Your task to perform on an android device: Go to CNN.com Image 0: 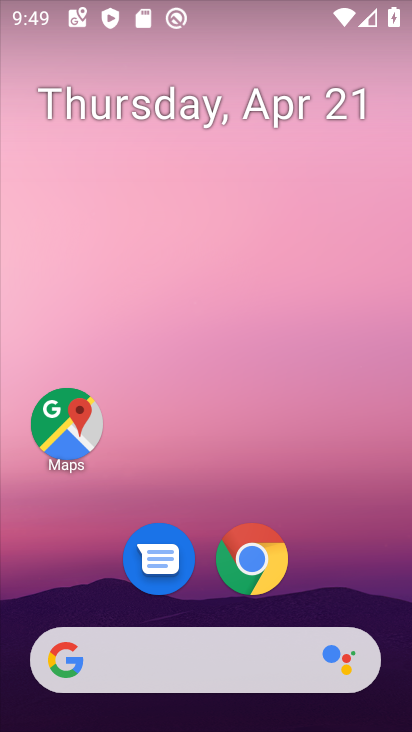
Step 0: drag from (282, 625) to (342, 181)
Your task to perform on an android device: Go to CNN.com Image 1: 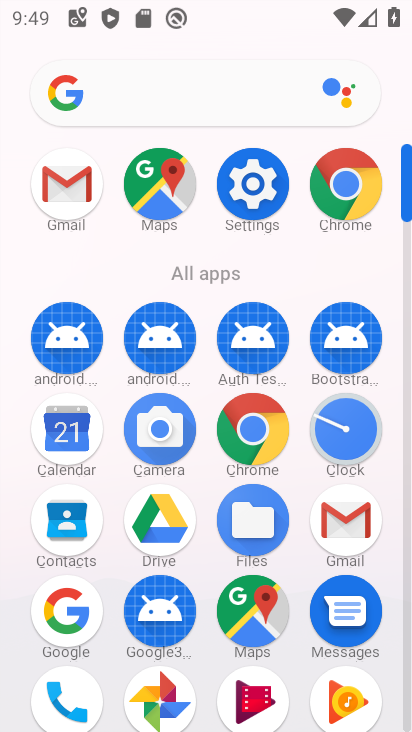
Step 1: click (322, 180)
Your task to perform on an android device: Go to CNN.com Image 2: 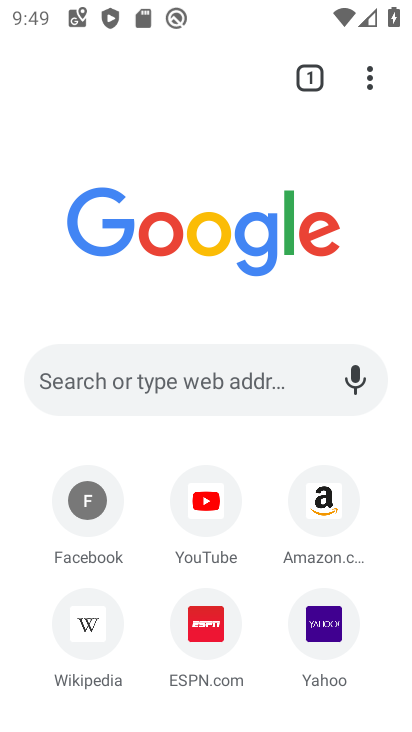
Step 2: click (132, 374)
Your task to perform on an android device: Go to CNN.com Image 3: 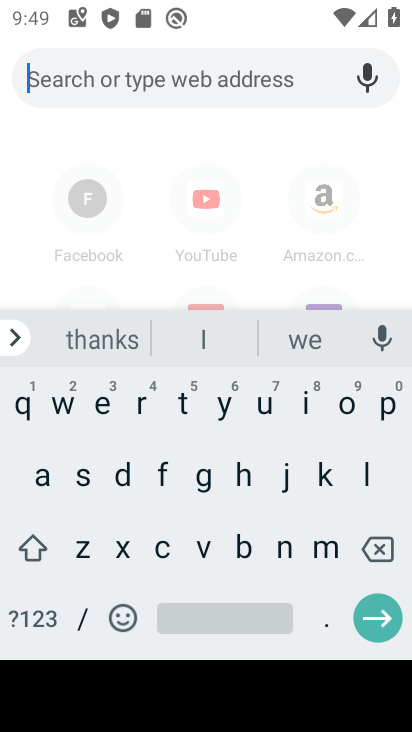
Step 3: click (163, 547)
Your task to perform on an android device: Go to CNN.com Image 4: 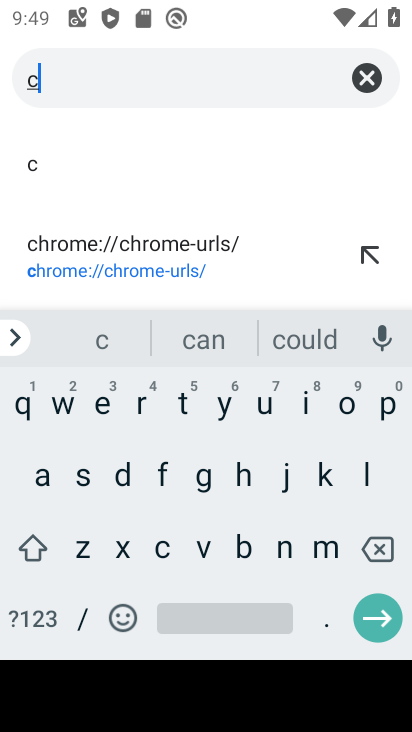
Step 4: click (280, 549)
Your task to perform on an android device: Go to CNN.com Image 5: 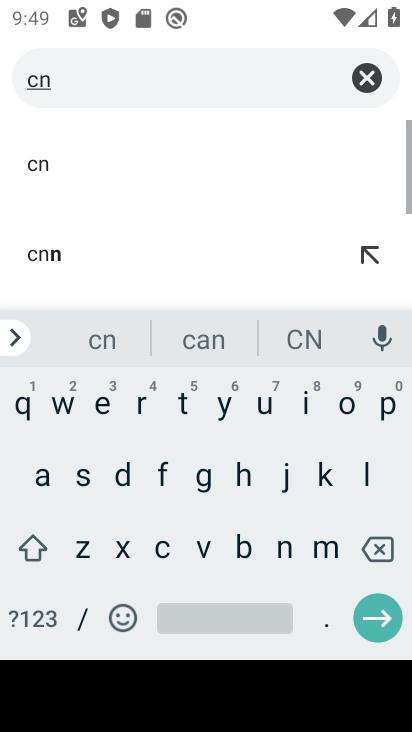
Step 5: click (280, 549)
Your task to perform on an android device: Go to CNN.com Image 6: 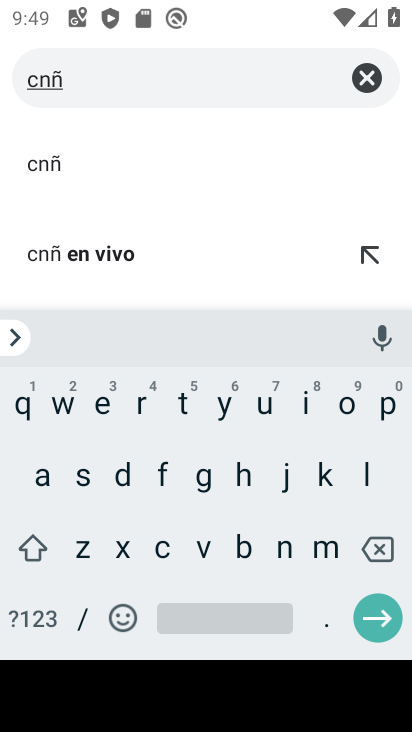
Step 6: click (385, 535)
Your task to perform on an android device: Go to CNN.com Image 7: 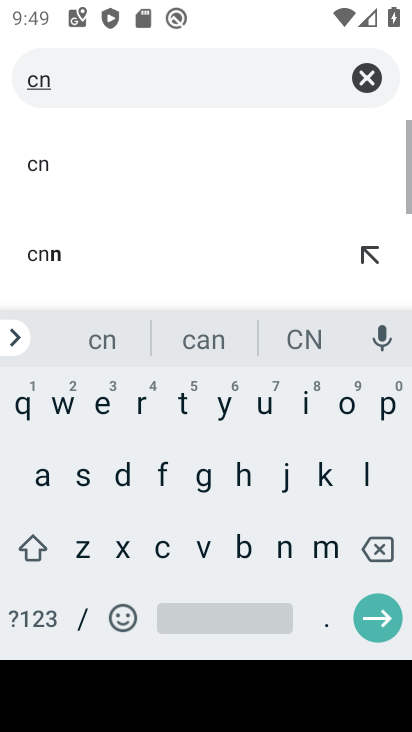
Step 7: click (293, 544)
Your task to perform on an android device: Go to CNN.com Image 8: 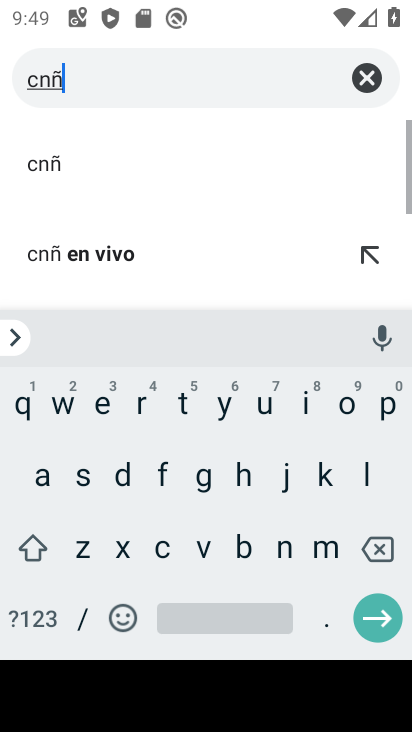
Step 8: click (379, 554)
Your task to perform on an android device: Go to CNN.com Image 9: 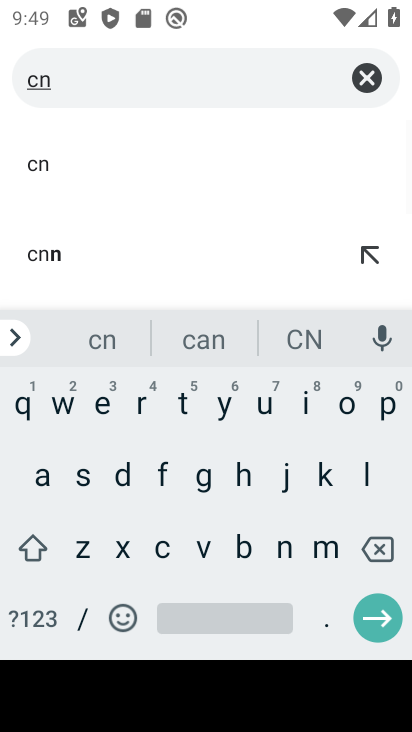
Step 9: click (285, 547)
Your task to perform on an android device: Go to CNN.com Image 10: 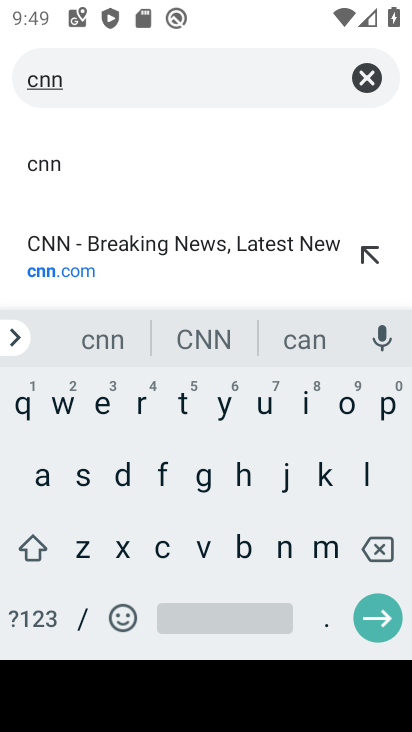
Step 10: click (178, 249)
Your task to perform on an android device: Go to CNN.com Image 11: 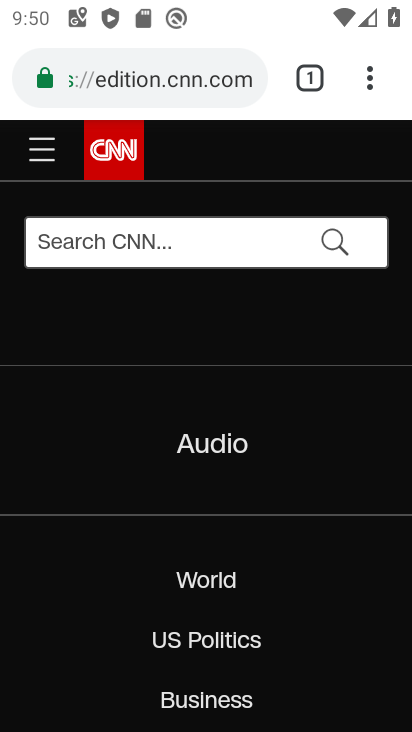
Step 11: task complete